Your task to perform on an android device: What's the weather going to be this weekend? Image 0: 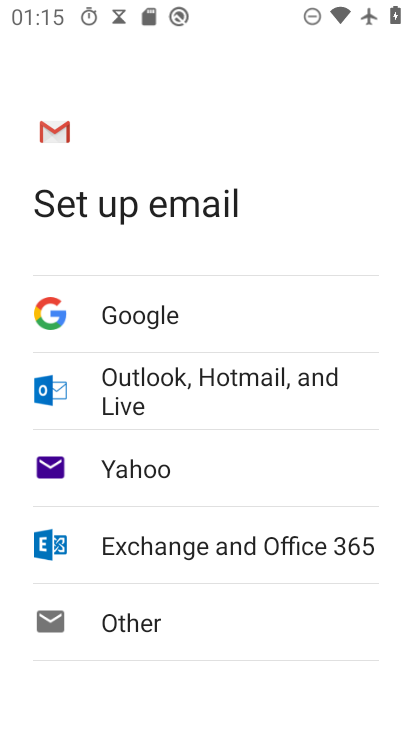
Step 0: press home button
Your task to perform on an android device: What's the weather going to be this weekend? Image 1: 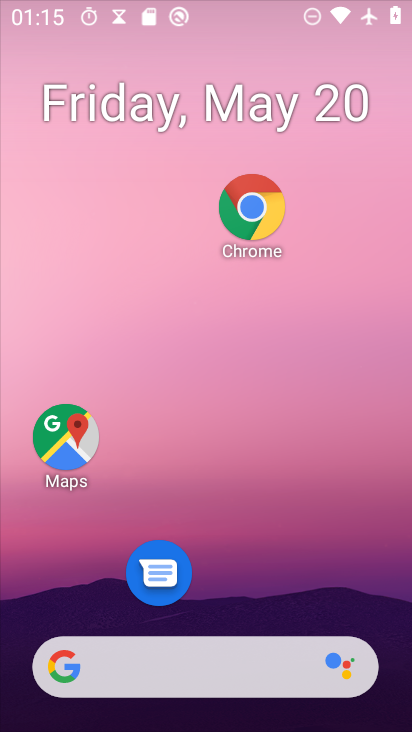
Step 1: click (174, 644)
Your task to perform on an android device: What's the weather going to be this weekend? Image 2: 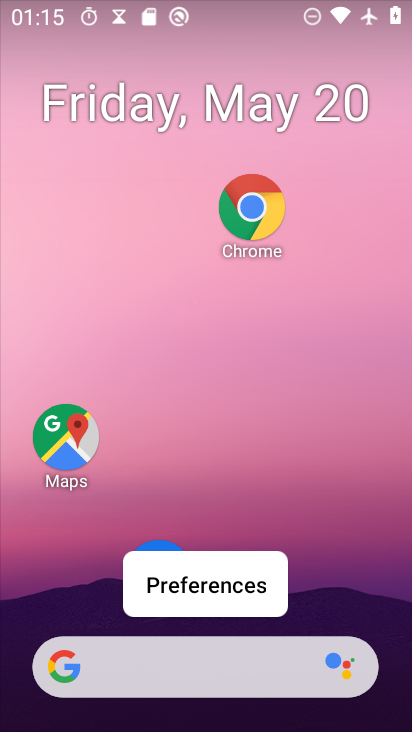
Step 2: click (125, 667)
Your task to perform on an android device: What's the weather going to be this weekend? Image 3: 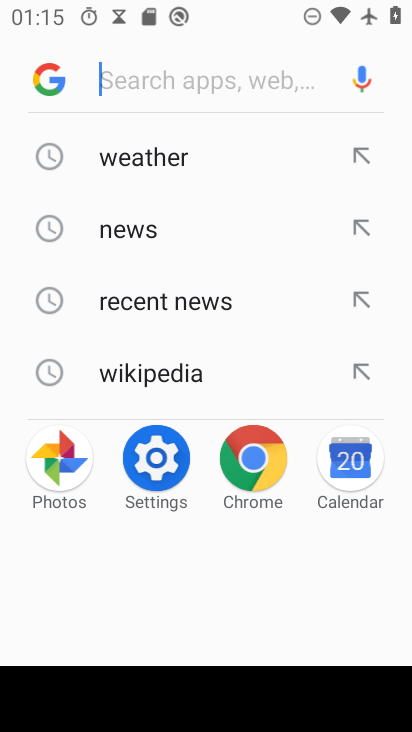
Step 3: type "what's the weather going to be this weekend"
Your task to perform on an android device: What's the weather going to be this weekend? Image 4: 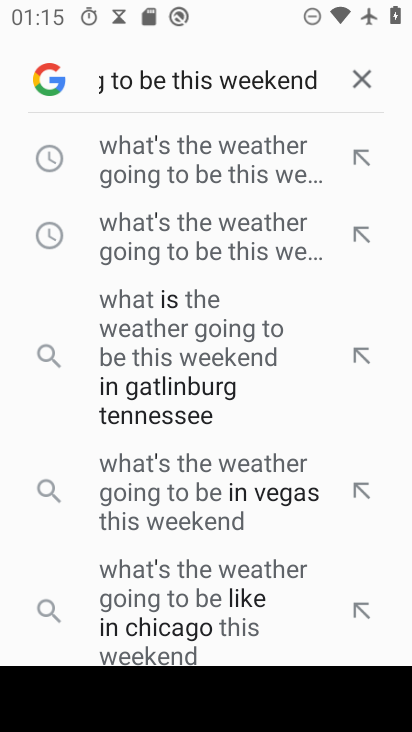
Step 4: click (183, 152)
Your task to perform on an android device: What's the weather going to be this weekend? Image 5: 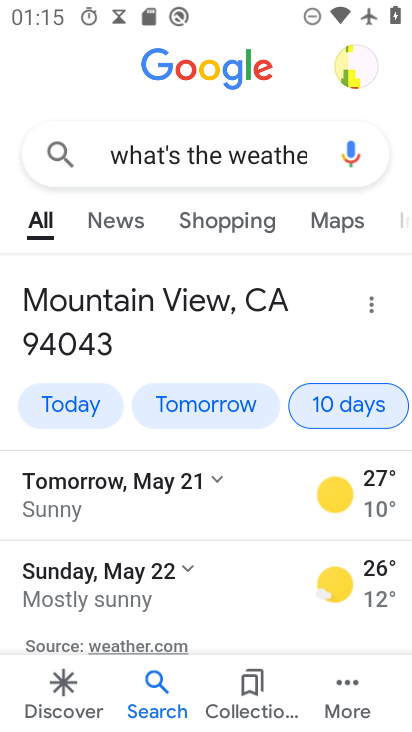
Step 5: task complete